Your task to perform on an android device: toggle sleep mode Image 0: 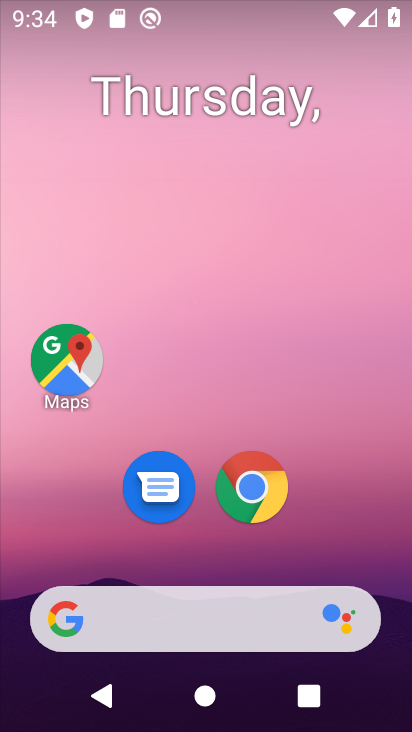
Step 0: drag from (335, 549) to (234, 288)
Your task to perform on an android device: toggle sleep mode Image 1: 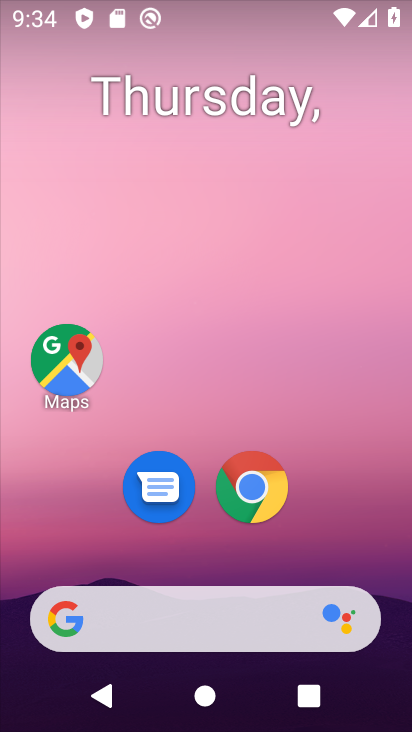
Step 1: drag from (351, 509) to (145, 99)
Your task to perform on an android device: toggle sleep mode Image 2: 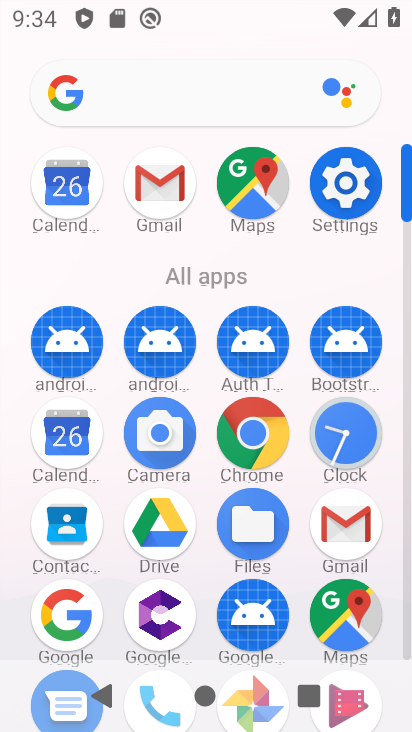
Step 2: click (350, 180)
Your task to perform on an android device: toggle sleep mode Image 3: 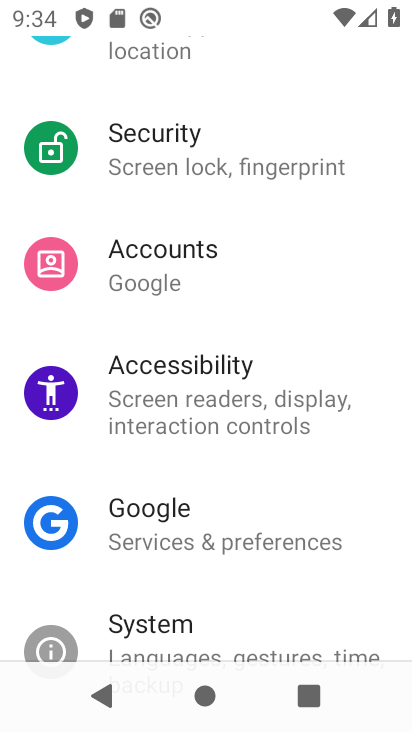
Step 3: drag from (288, 120) to (321, 526)
Your task to perform on an android device: toggle sleep mode Image 4: 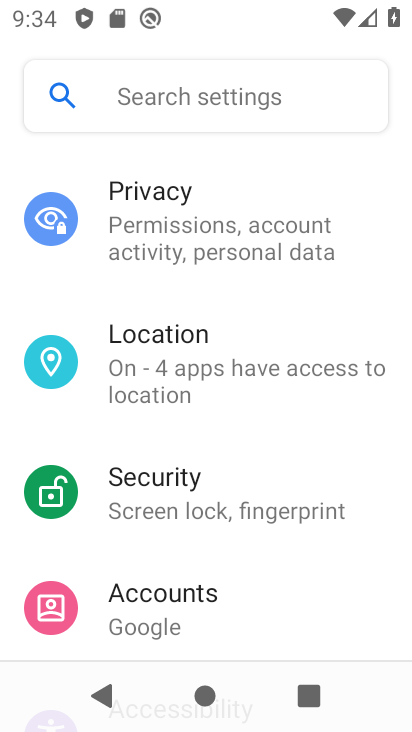
Step 4: click (221, 106)
Your task to perform on an android device: toggle sleep mode Image 5: 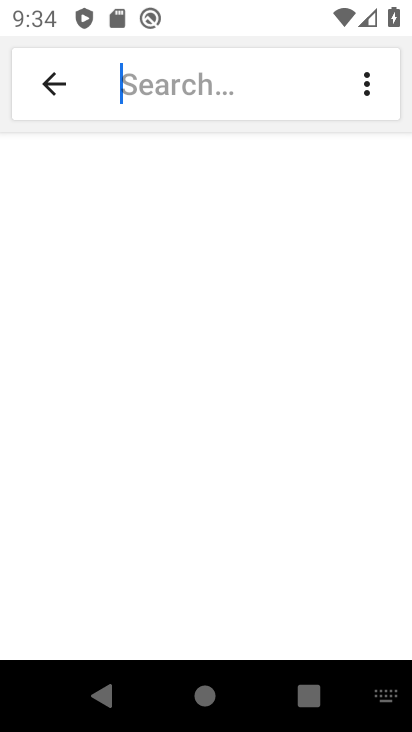
Step 5: type "sleep mode"
Your task to perform on an android device: toggle sleep mode Image 6: 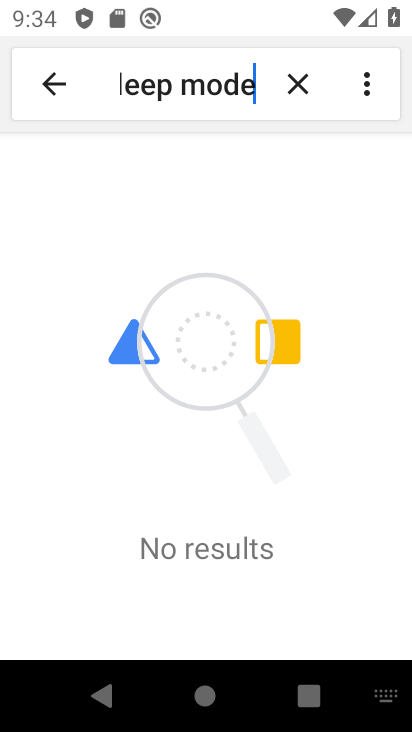
Step 6: click (216, 165)
Your task to perform on an android device: toggle sleep mode Image 7: 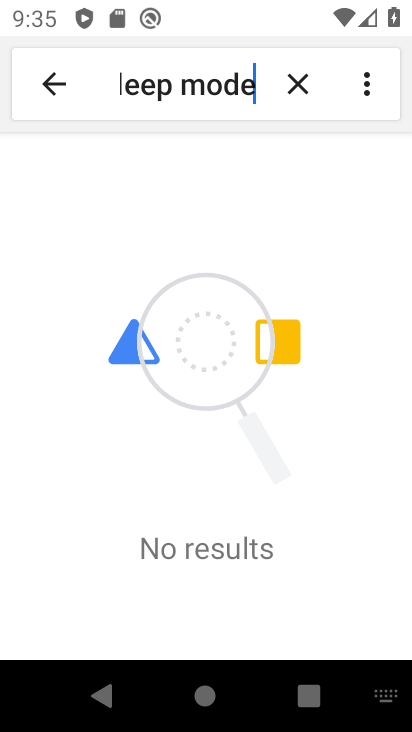
Step 7: task complete